Your task to perform on an android device: Do I have any events today? Image 0: 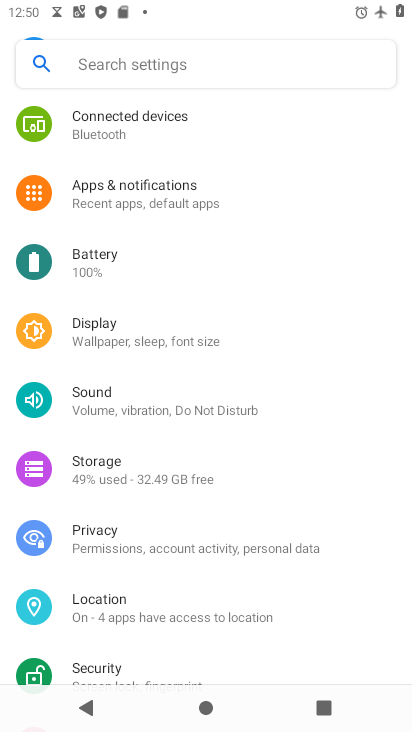
Step 0: press home button
Your task to perform on an android device: Do I have any events today? Image 1: 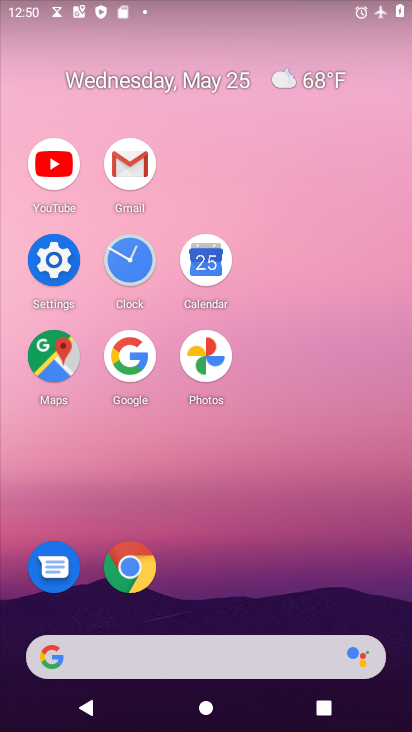
Step 1: click (210, 272)
Your task to perform on an android device: Do I have any events today? Image 2: 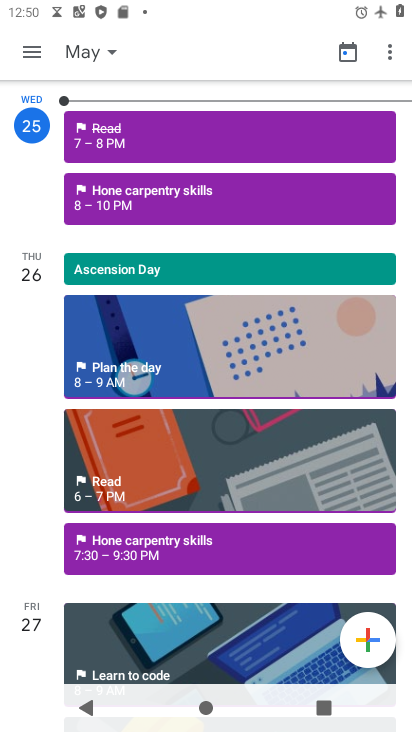
Step 2: task complete